Your task to perform on an android device: show emergency info Image 0: 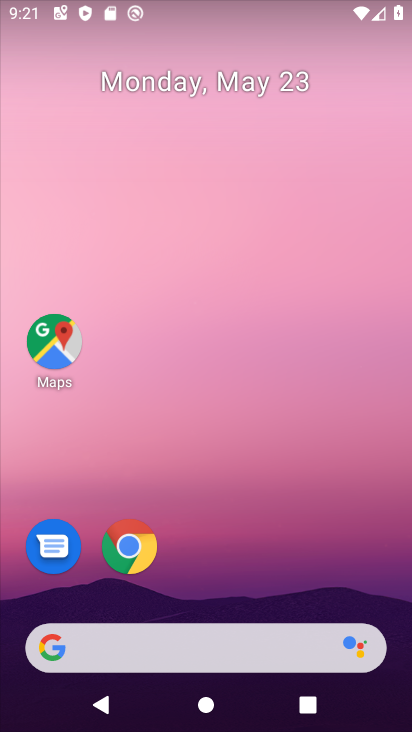
Step 0: drag from (395, 614) to (332, 63)
Your task to perform on an android device: show emergency info Image 1: 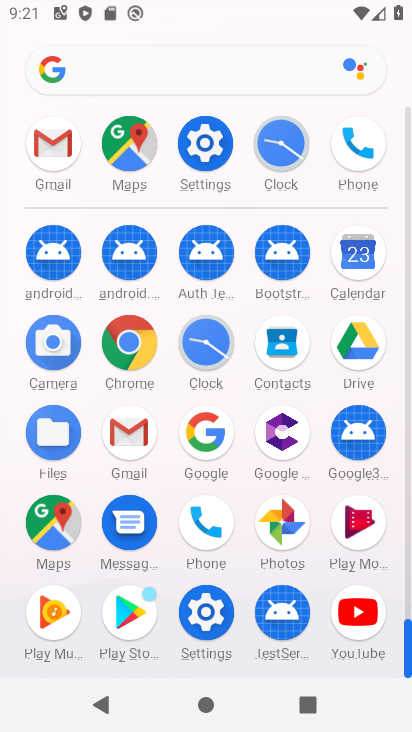
Step 1: click (206, 613)
Your task to perform on an android device: show emergency info Image 2: 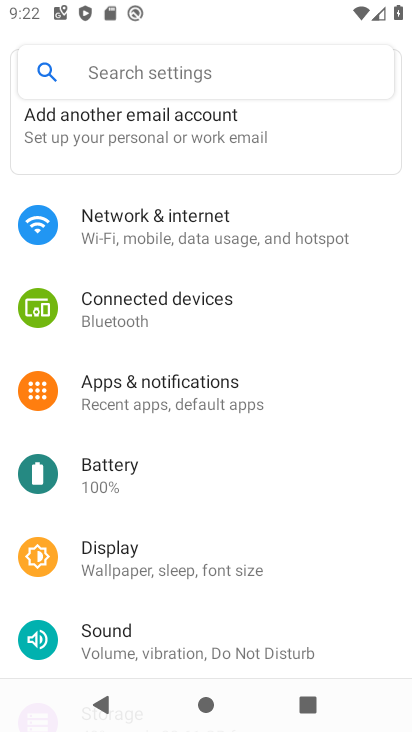
Step 2: drag from (371, 651) to (289, 130)
Your task to perform on an android device: show emergency info Image 3: 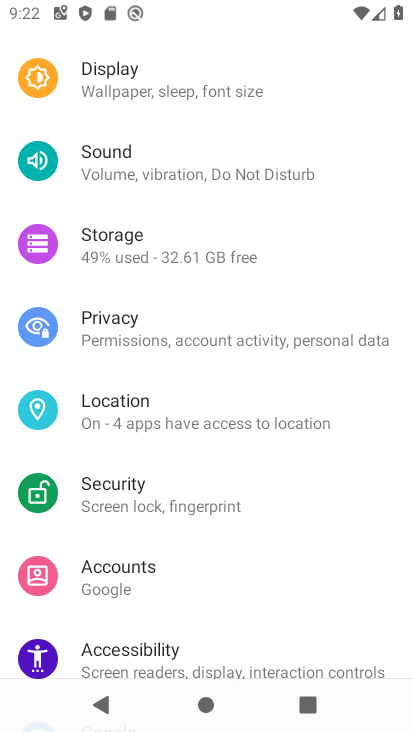
Step 3: drag from (345, 661) to (367, 212)
Your task to perform on an android device: show emergency info Image 4: 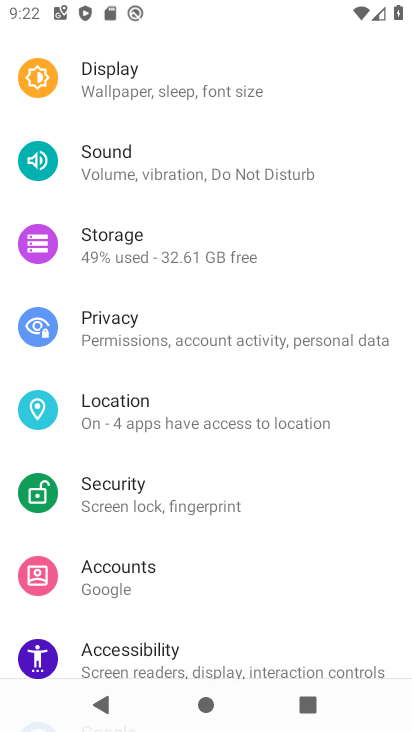
Step 4: drag from (310, 628) to (335, 72)
Your task to perform on an android device: show emergency info Image 5: 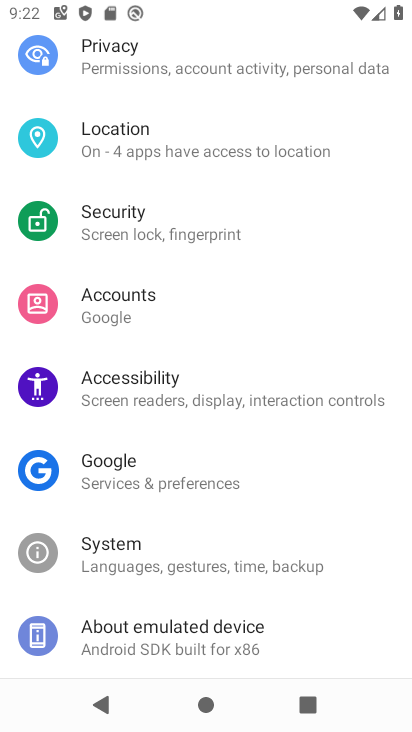
Step 5: click (132, 644)
Your task to perform on an android device: show emergency info Image 6: 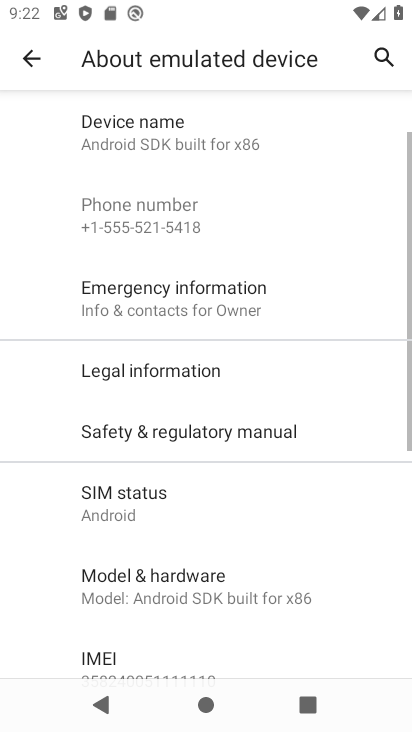
Step 6: click (155, 277)
Your task to perform on an android device: show emergency info Image 7: 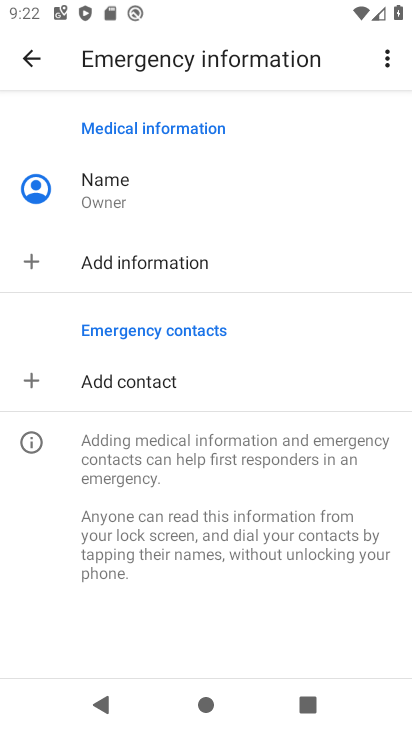
Step 7: task complete